Your task to perform on an android device: turn off data saver in the chrome app Image 0: 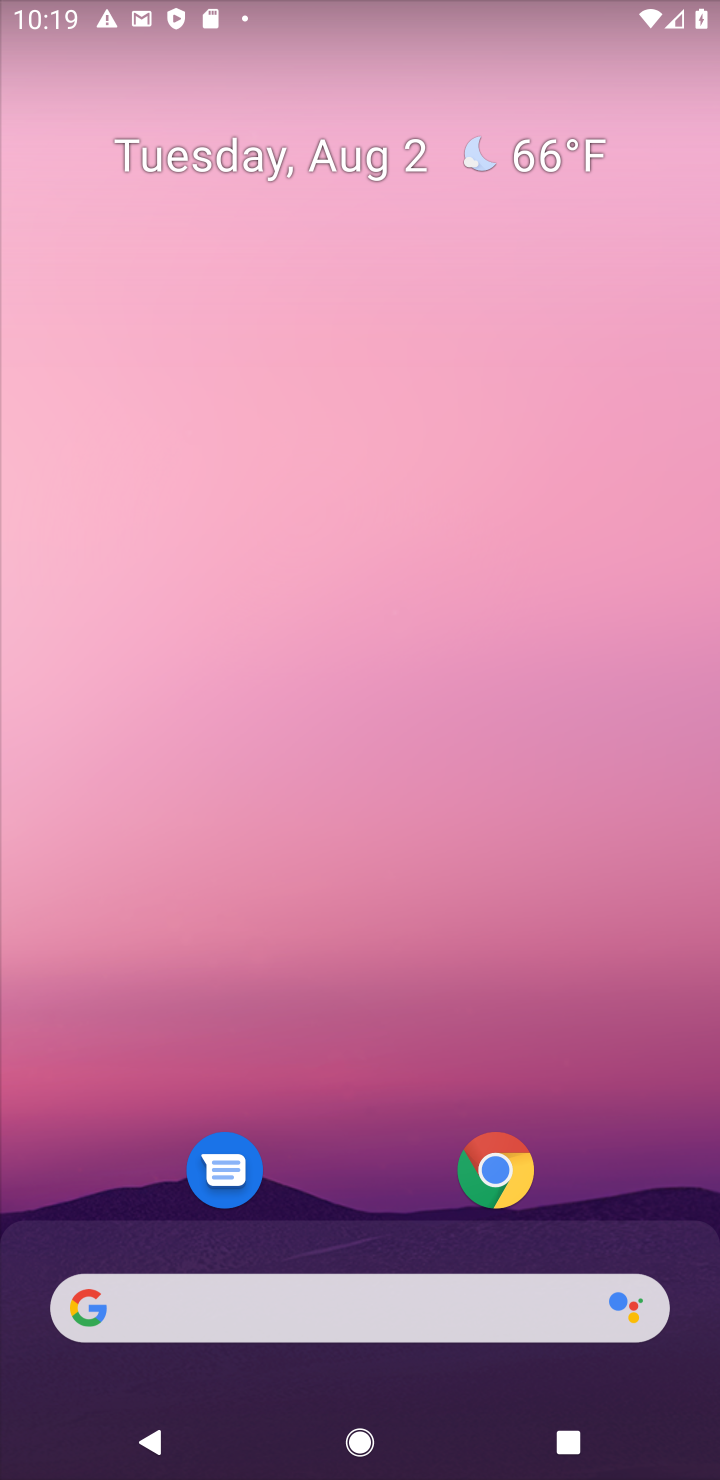
Step 0: drag from (308, 645) to (359, 382)
Your task to perform on an android device: turn off data saver in the chrome app Image 1: 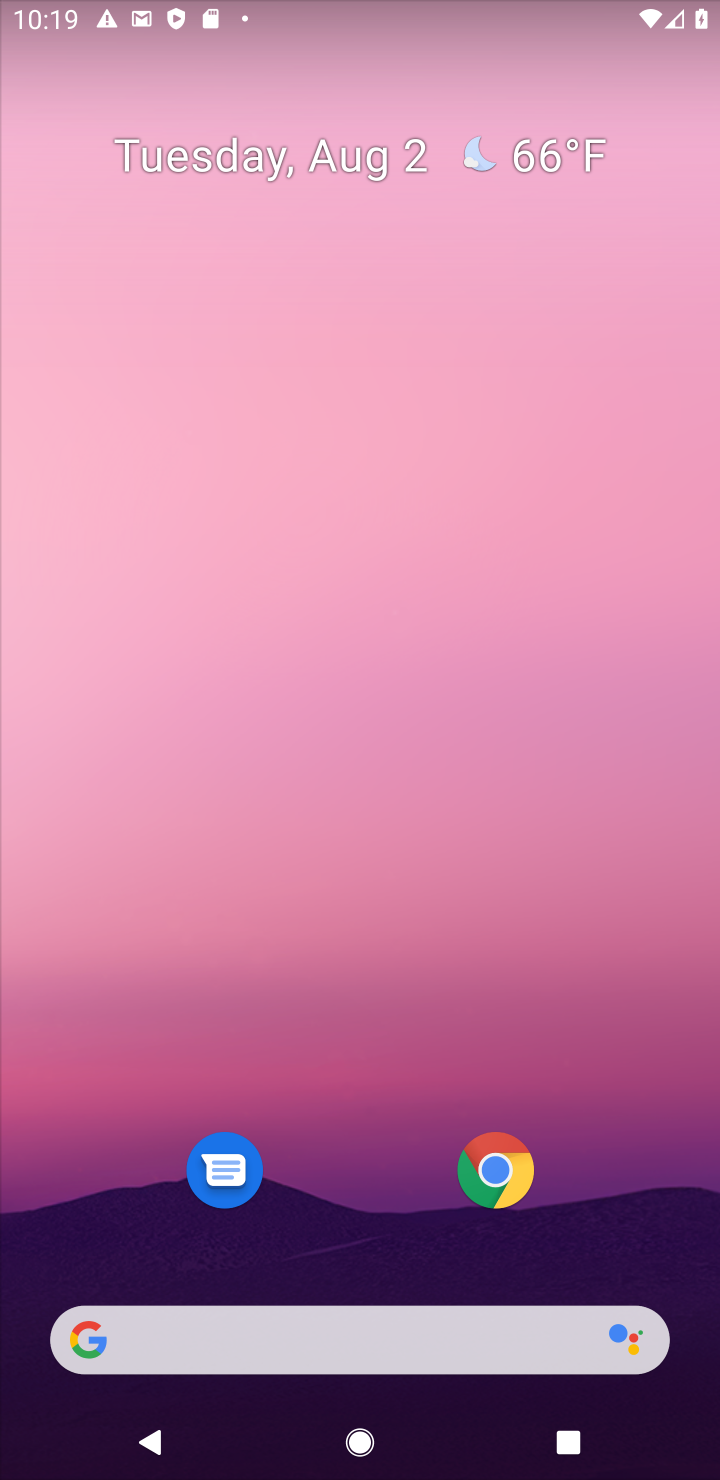
Step 1: drag from (330, 1249) to (503, 332)
Your task to perform on an android device: turn off data saver in the chrome app Image 2: 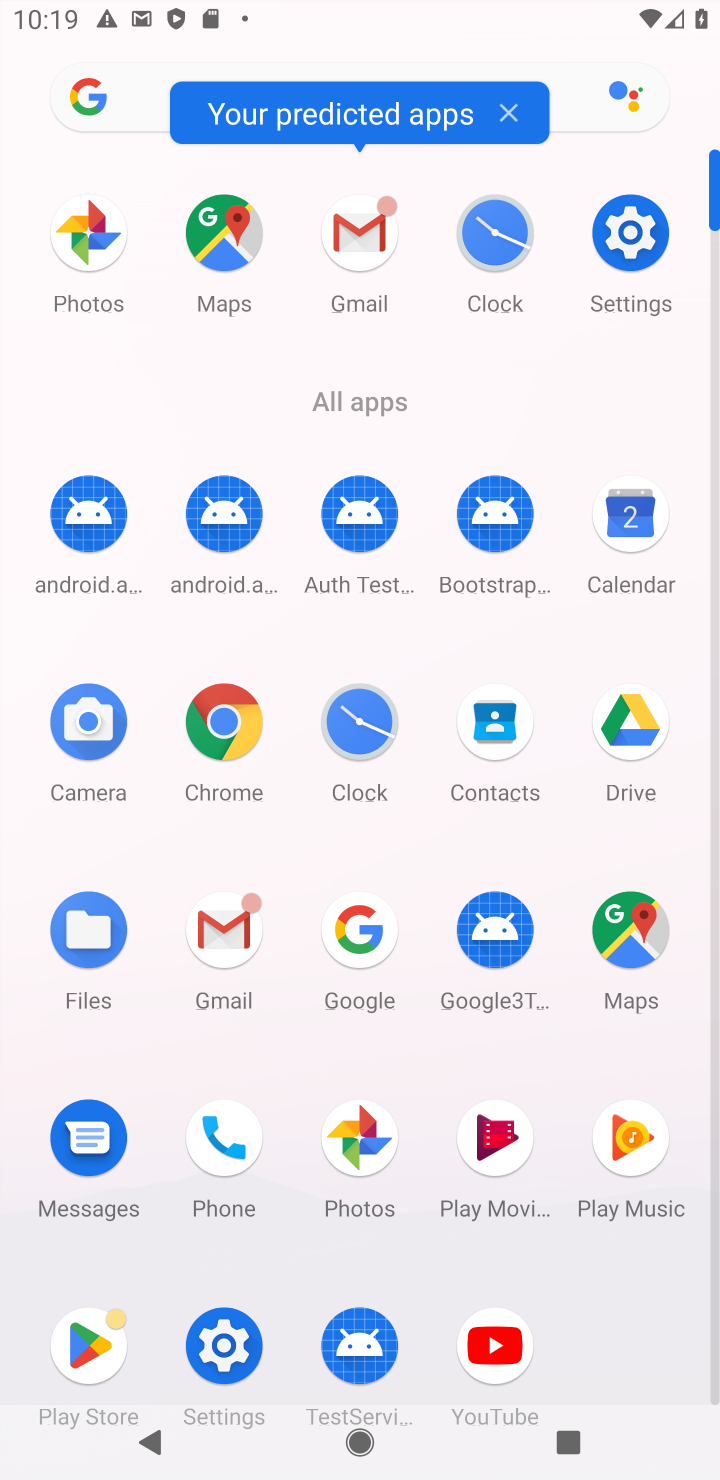
Step 2: click (215, 714)
Your task to perform on an android device: turn off data saver in the chrome app Image 3: 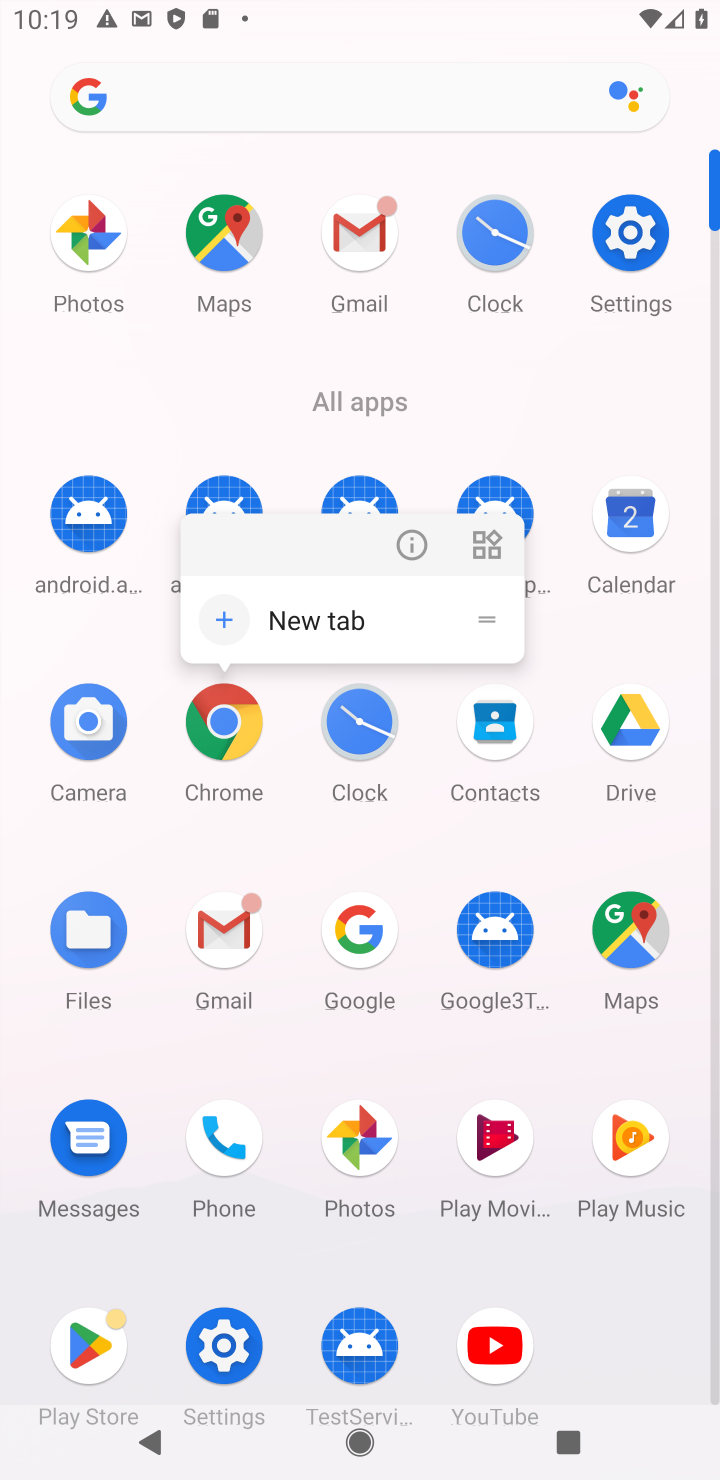
Step 3: click (417, 537)
Your task to perform on an android device: turn off data saver in the chrome app Image 4: 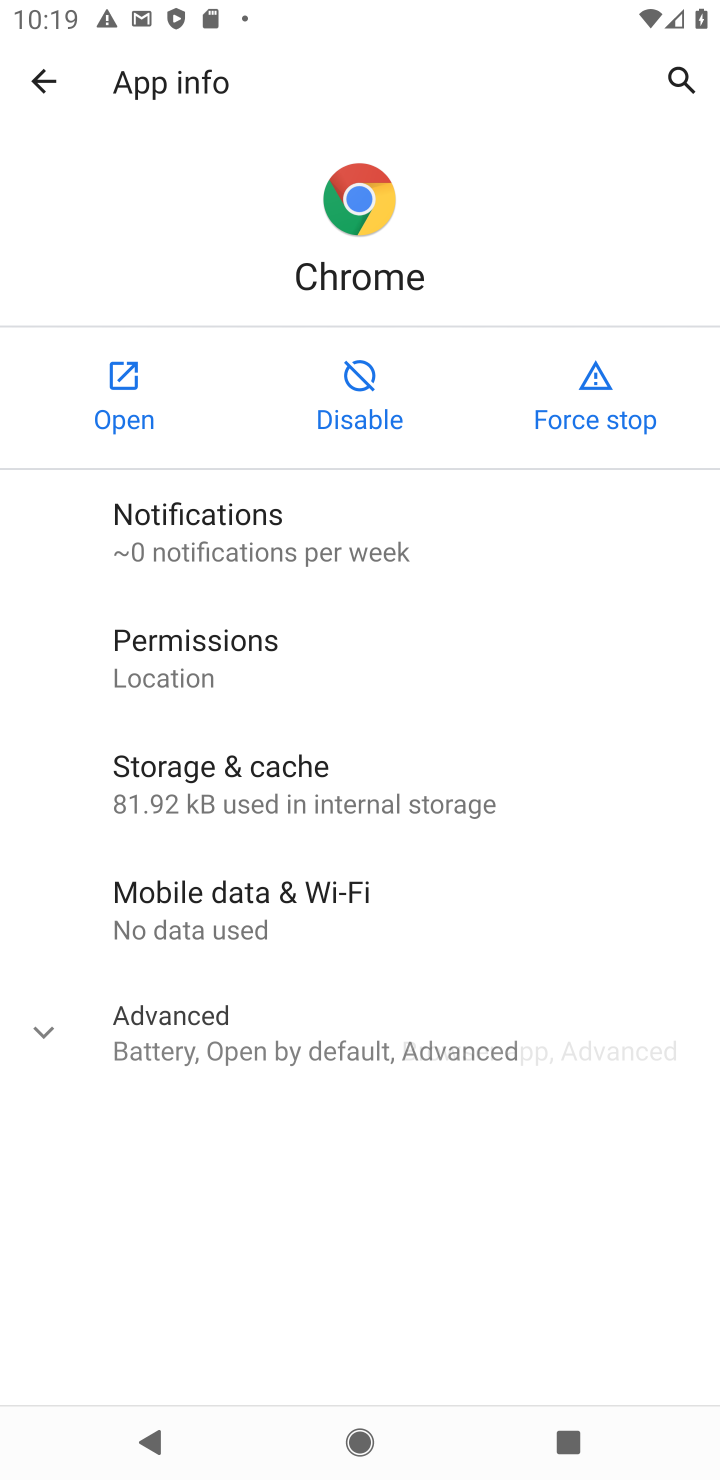
Step 4: click (135, 424)
Your task to perform on an android device: turn off data saver in the chrome app Image 5: 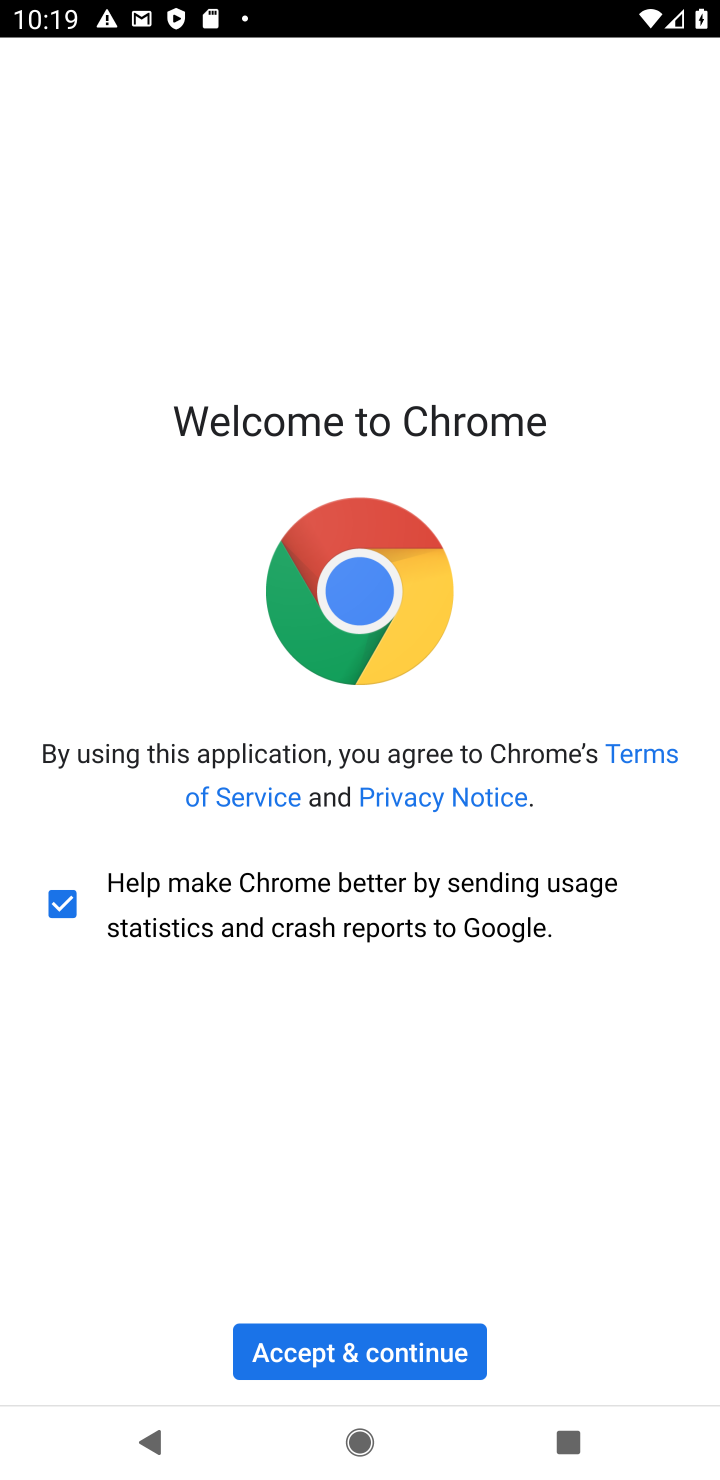
Step 5: click (402, 1364)
Your task to perform on an android device: turn off data saver in the chrome app Image 6: 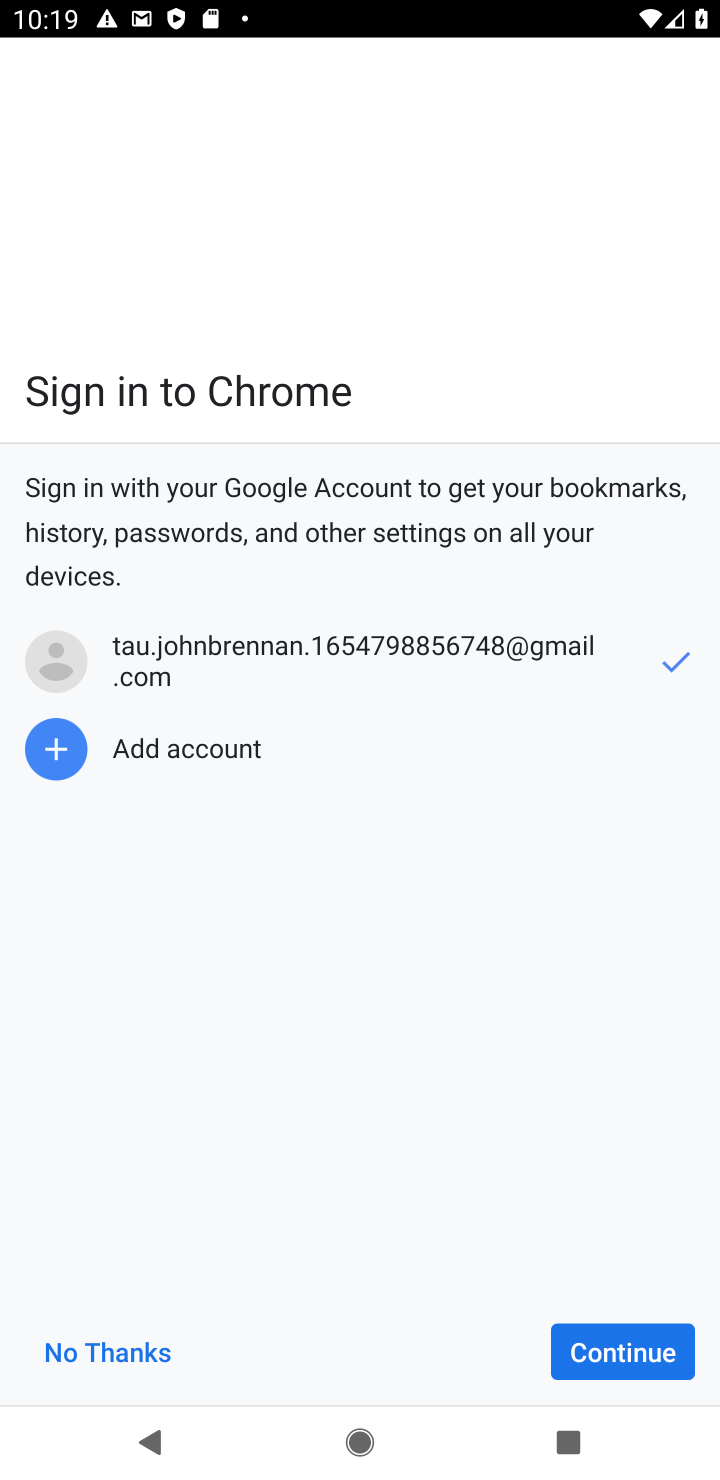
Step 6: click (589, 1352)
Your task to perform on an android device: turn off data saver in the chrome app Image 7: 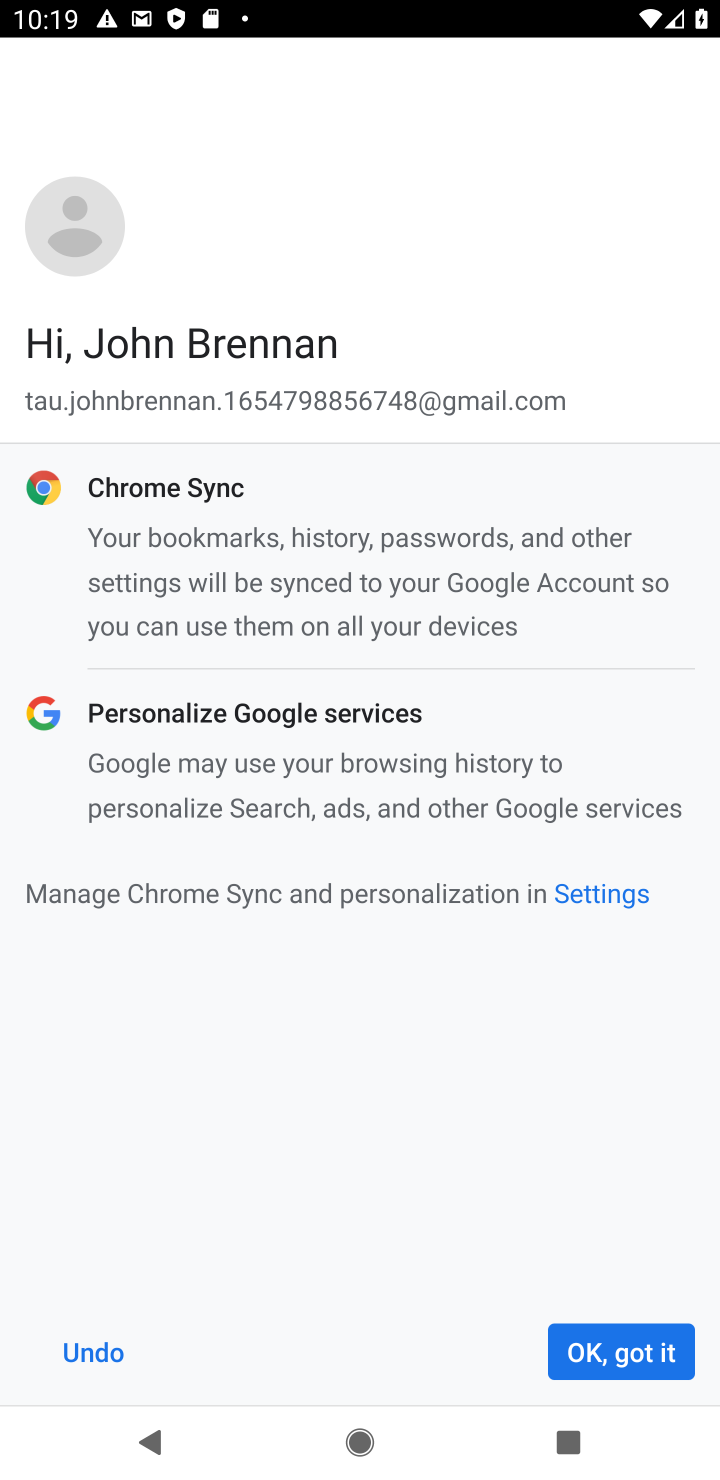
Step 7: click (605, 1349)
Your task to perform on an android device: turn off data saver in the chrome app Image 8: 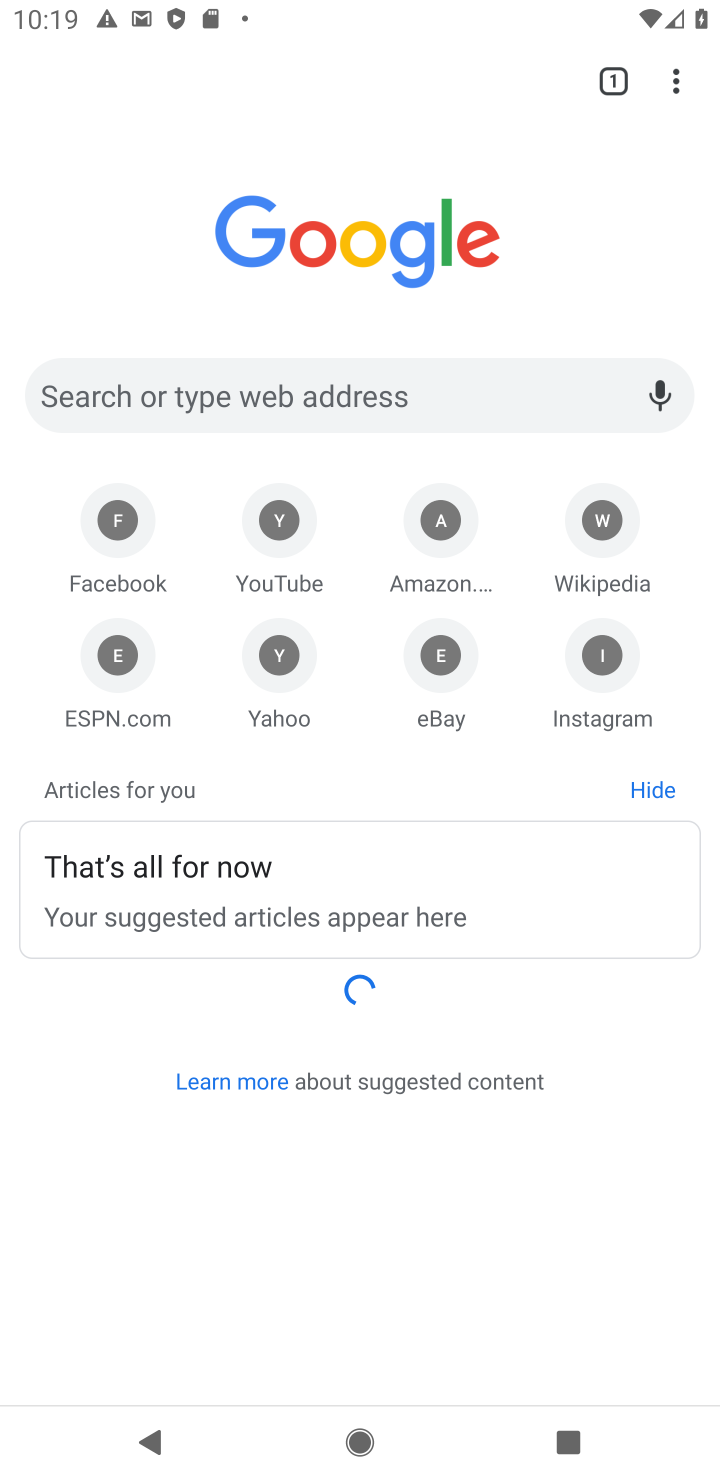
Step 8: drag from (357, 1263) to (458, 526)
Your task to perform on an android device: turn off data saver in the chrome app Image 9: 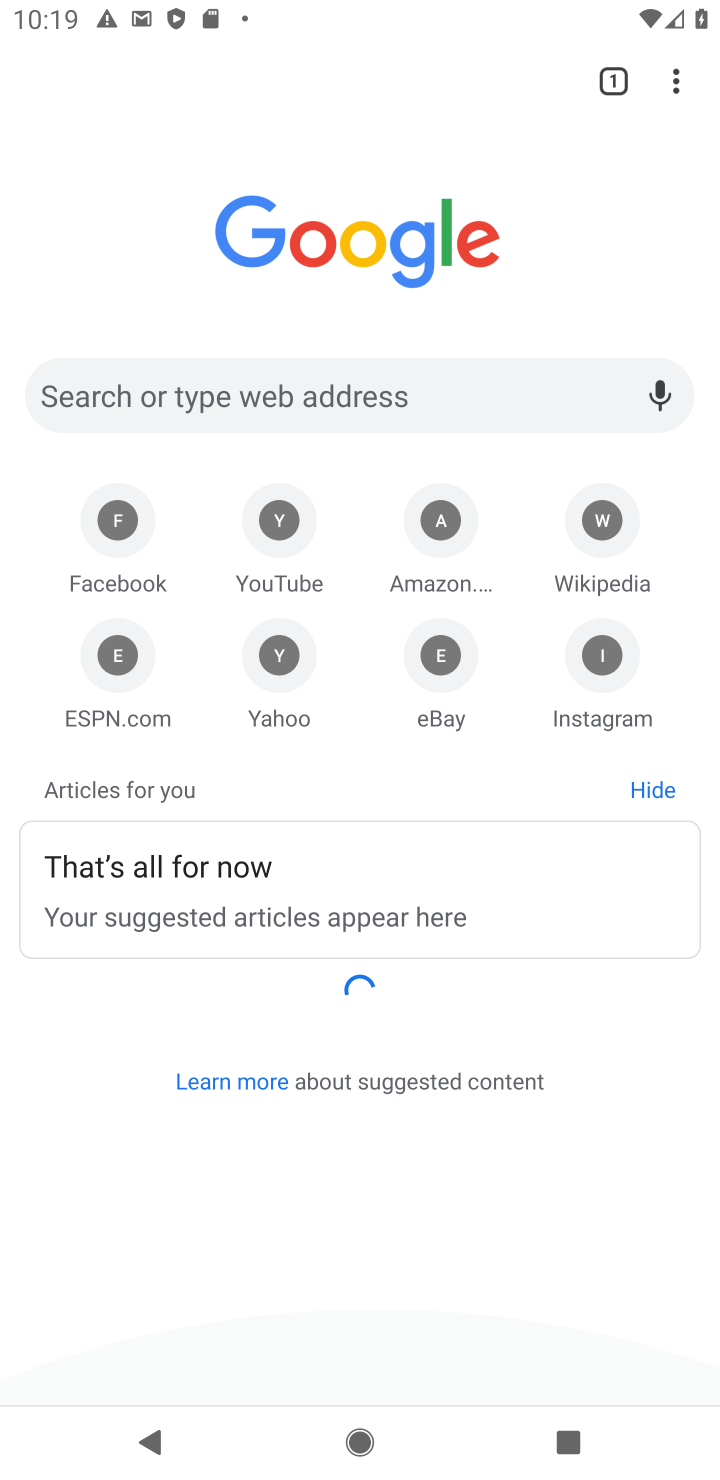
Step 9: drag from (441, 562) to (482, 1093)
Your task to perform on an android device: turn off data saver in the chrome app Image 10: 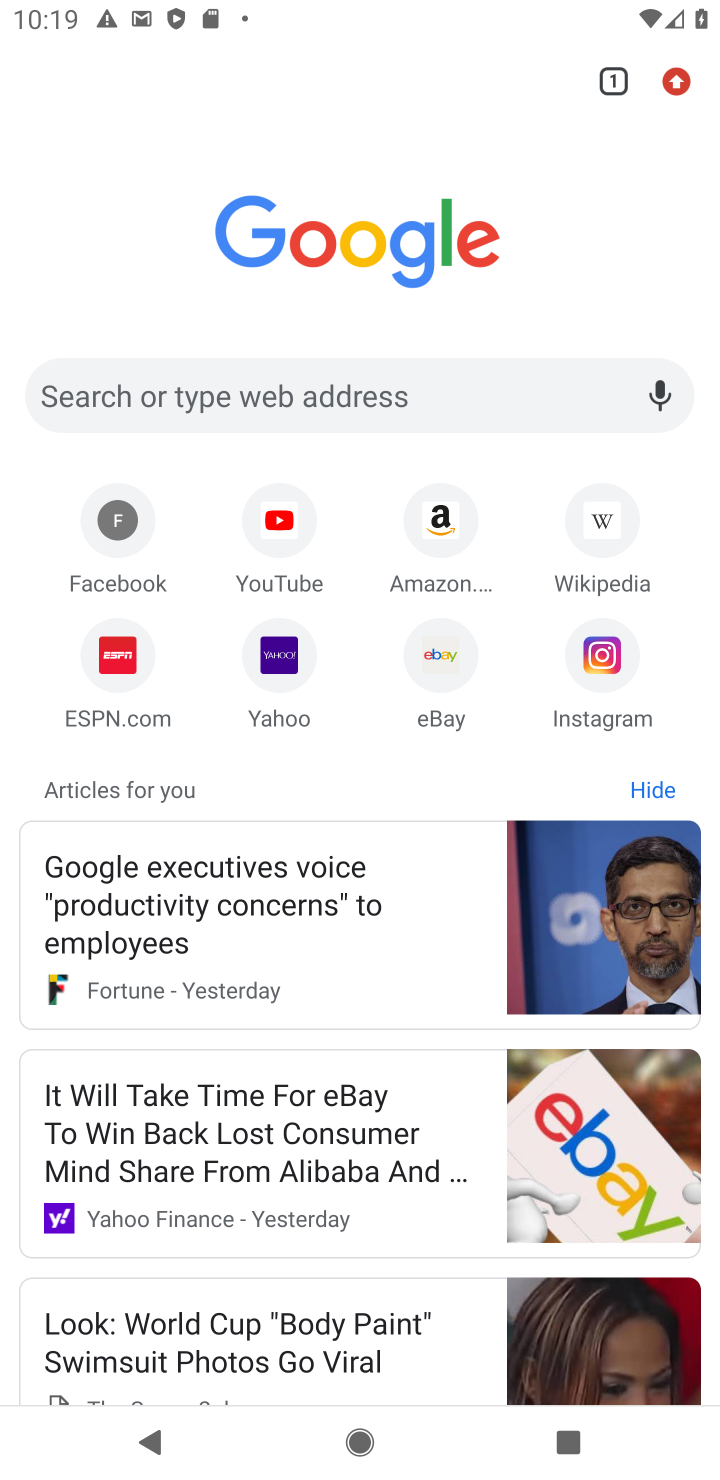
Step 10: drag from (689, 90) to (463, 796)
Your task to perform on an android device: turn off data saver in the chrome app Image 11: 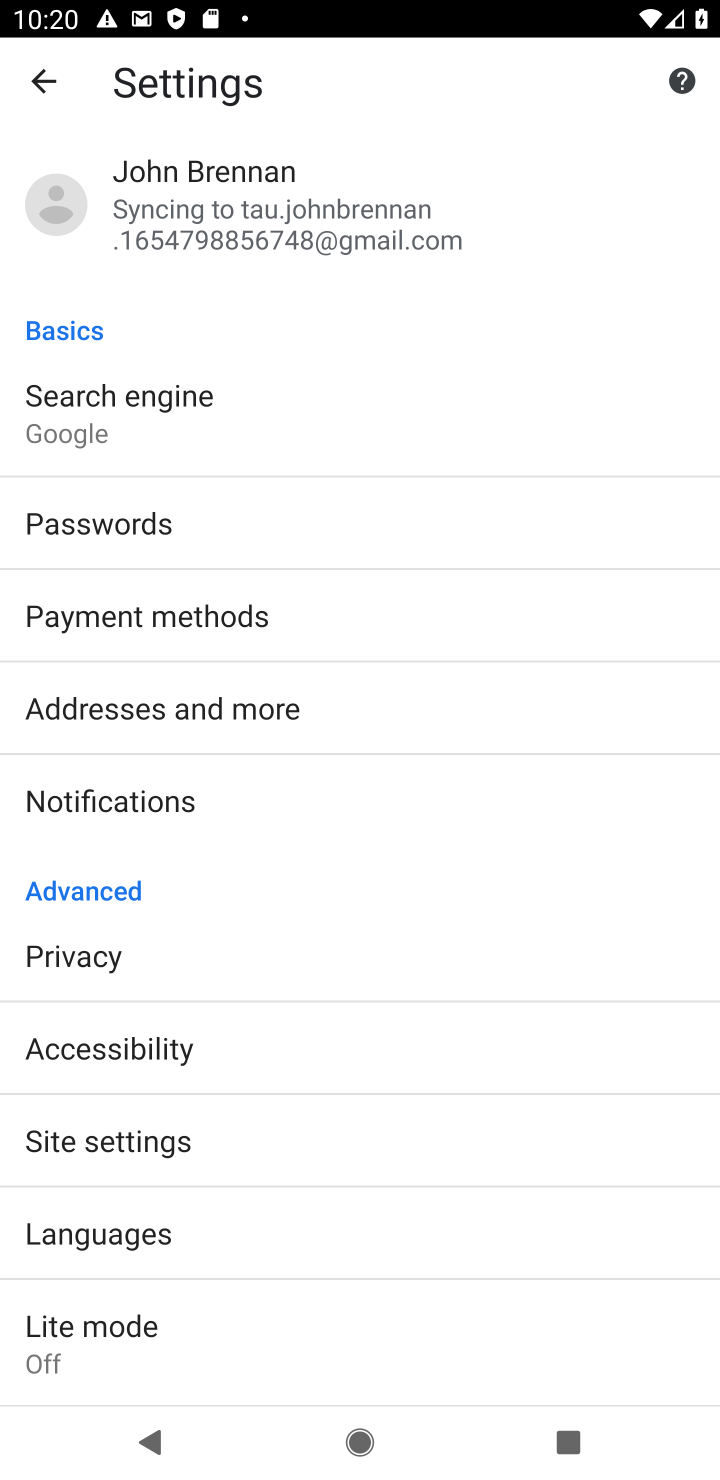
Step 11: drag from (437, 1242) to (492, 688)
Your task to perform on an android device: turn off data saver in the chrome app Image 12: 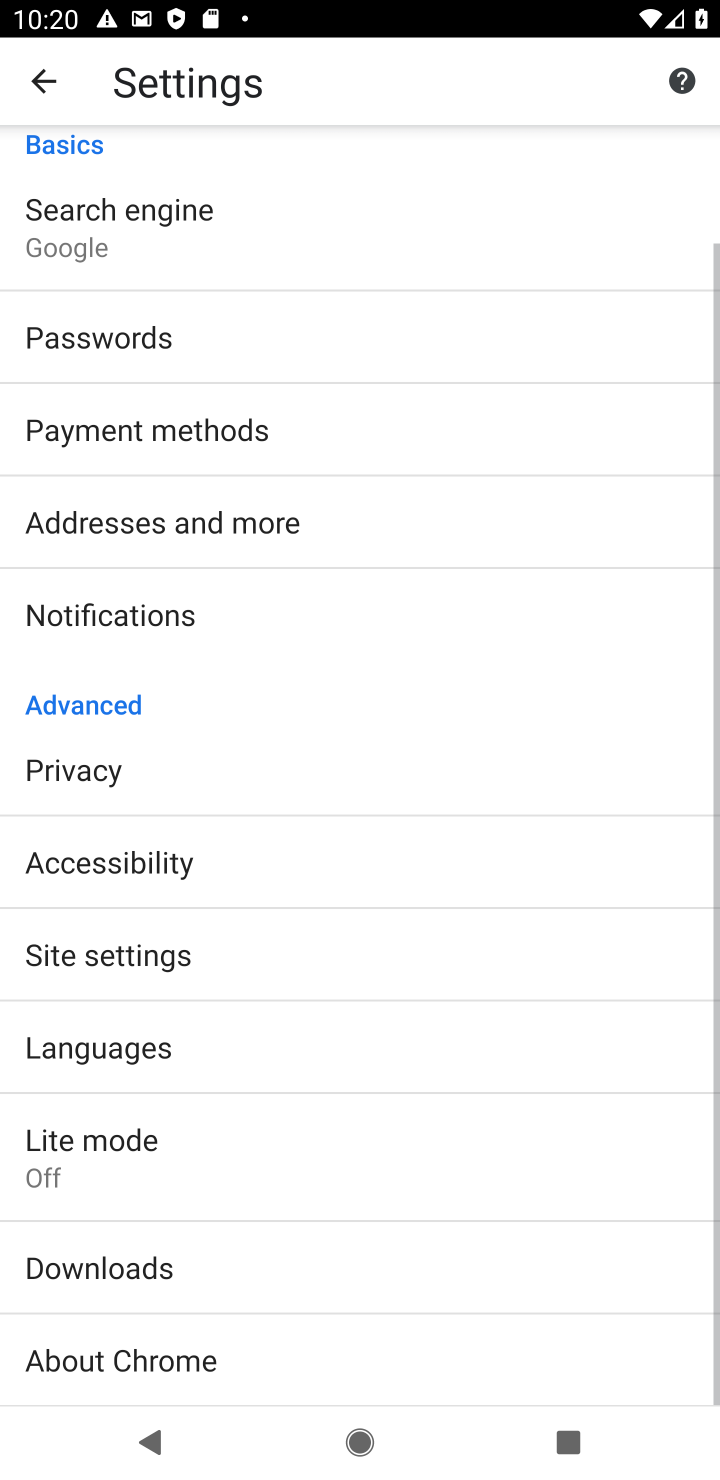
Step 12: click (251, 936)
Your task to perform on an android device: turn off data saver in the chrome app Image 13: 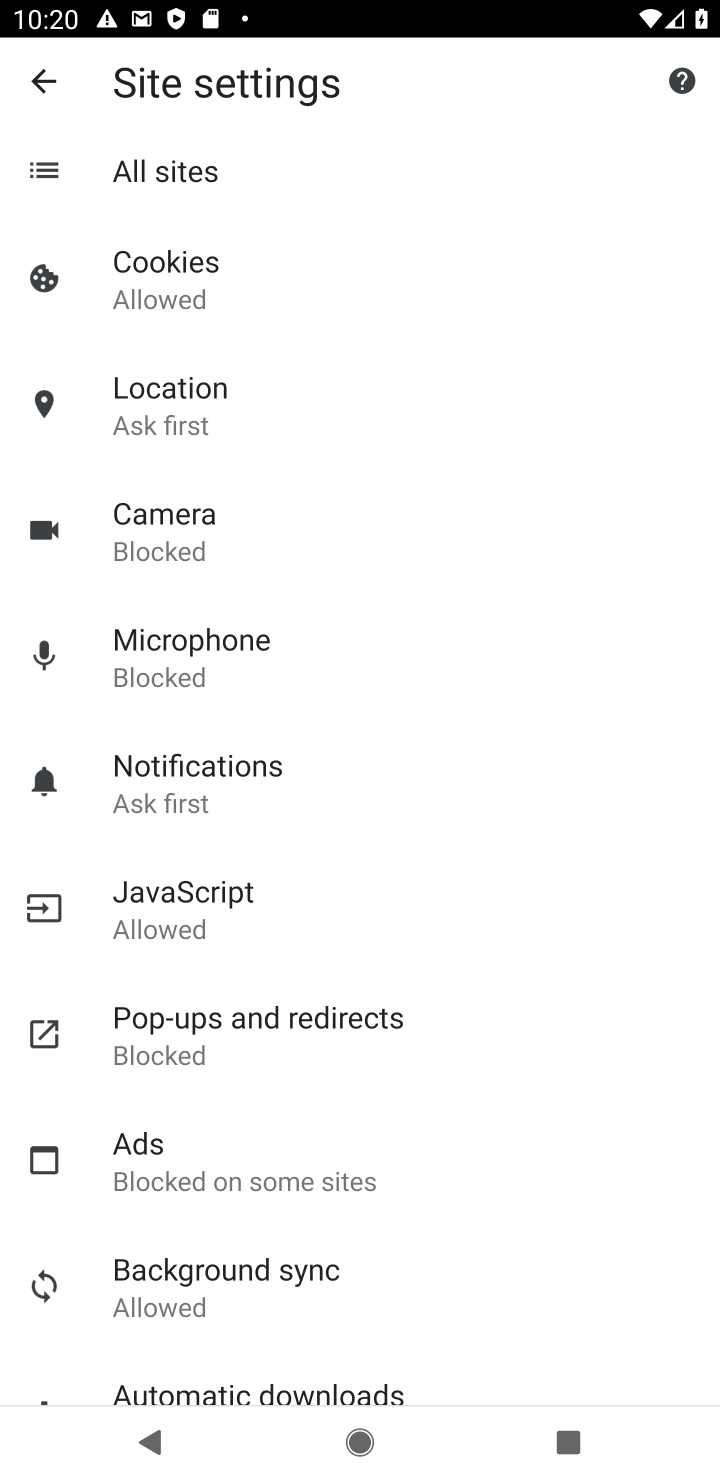
Step 13: drag from (420, 1205) to (444, 734)
Your task to perform on an android device: turn off data saver in the chrome app Image 14: 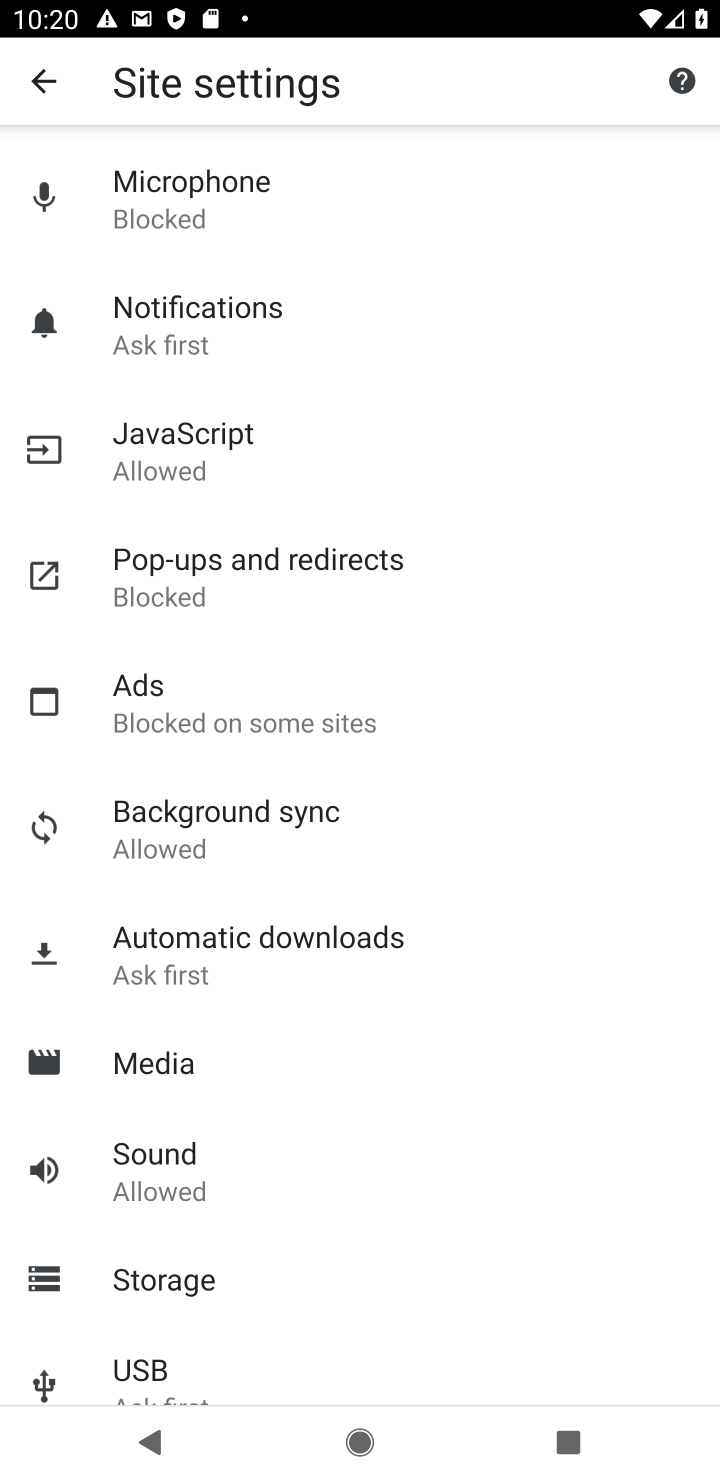
Step 14: drag from (330, 1175) to (344, 673)
Your task to perform on an android device: turn off data saver in the chrome app Image 15: 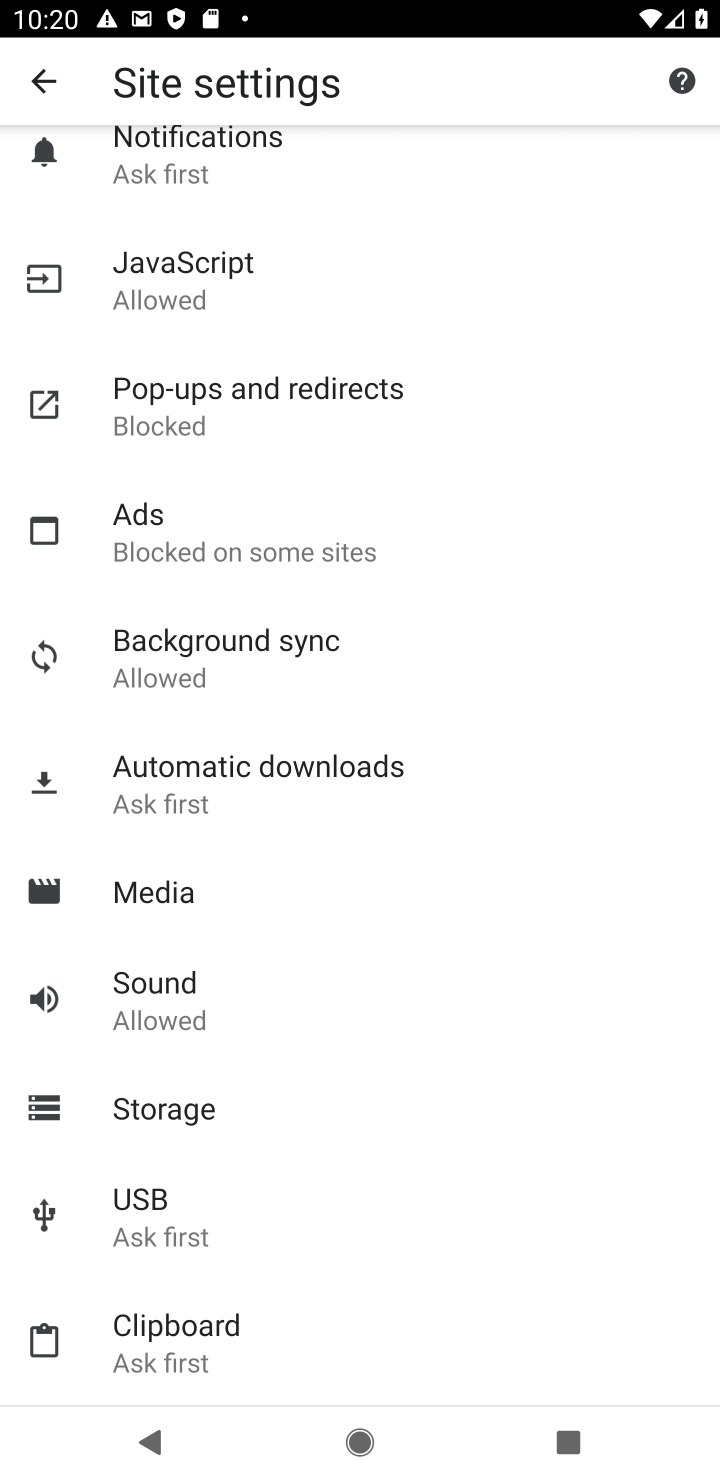
Step 15: click (54, 72)
Your task to perform on an android device: turn off data saver in the chrome app Image 16: 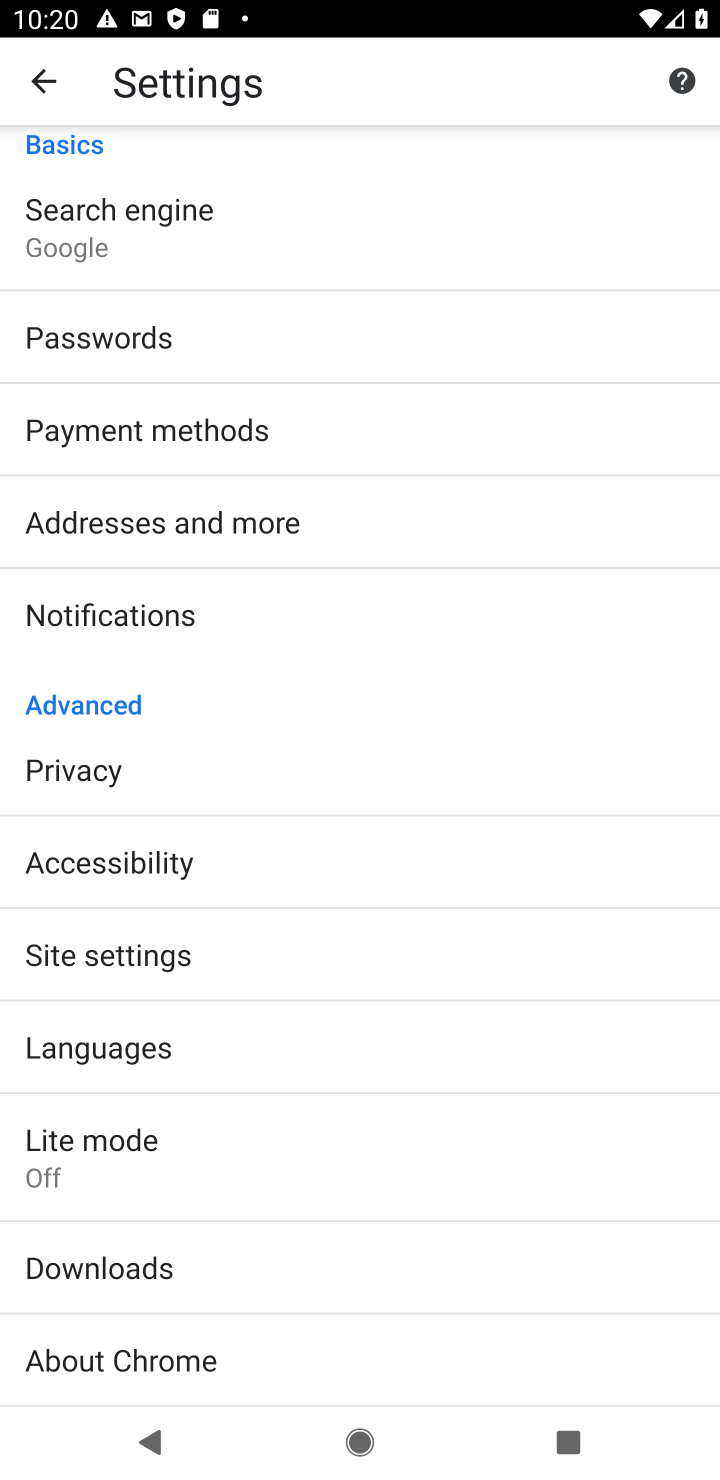
Step 16: click (262, 1172)
Your task to perform on an android device: turn off data saver in the chrome app Image 17: 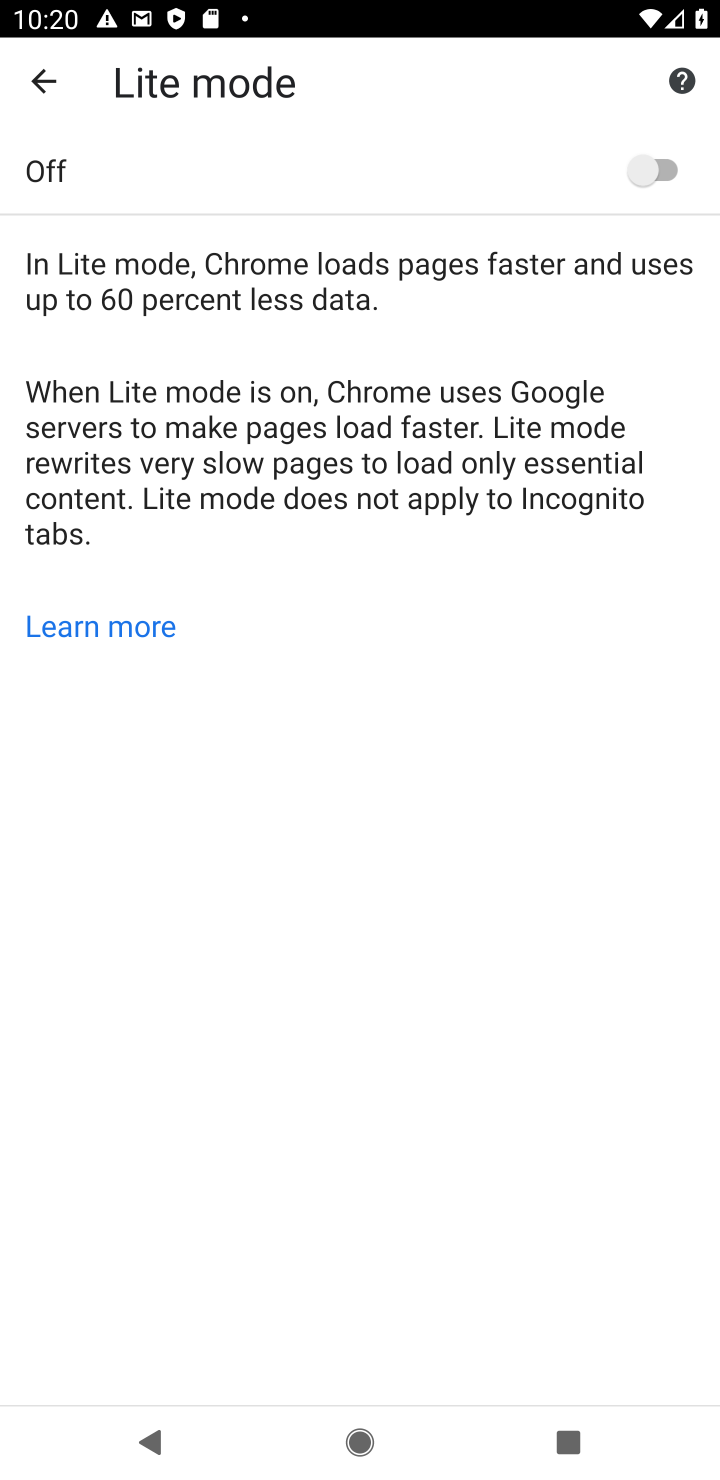
Step 17: task complete